Your task to perform on an android device: Go to CNN.com Image 0: 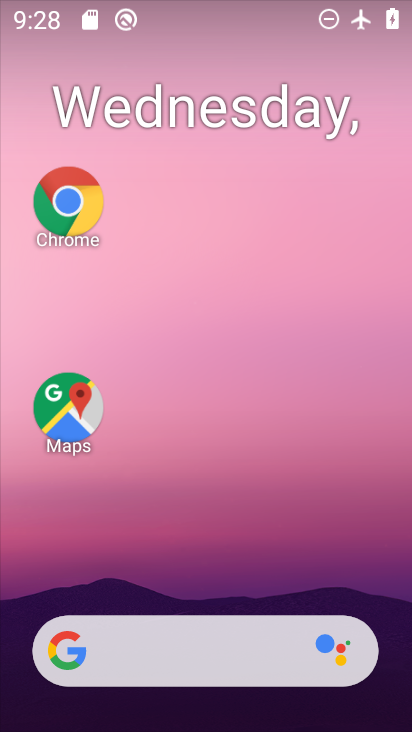
Step 0: click (68, 220)
Your task to perform on an android device: Go to CNN.com Image 1: 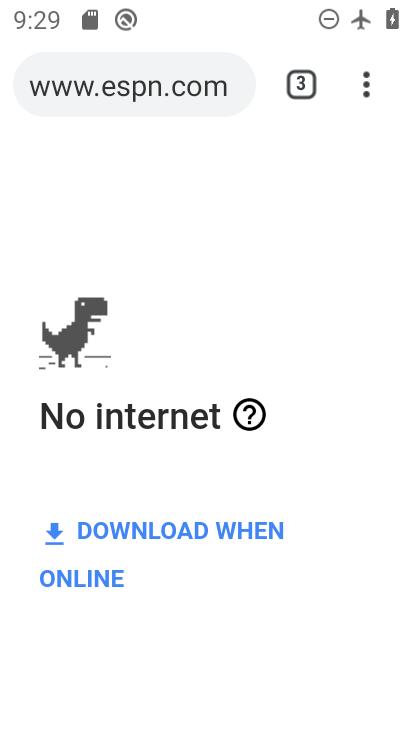
Step 1: click (308, 100)
Your task to perform on an android device: Go to CNN.com Image 2: 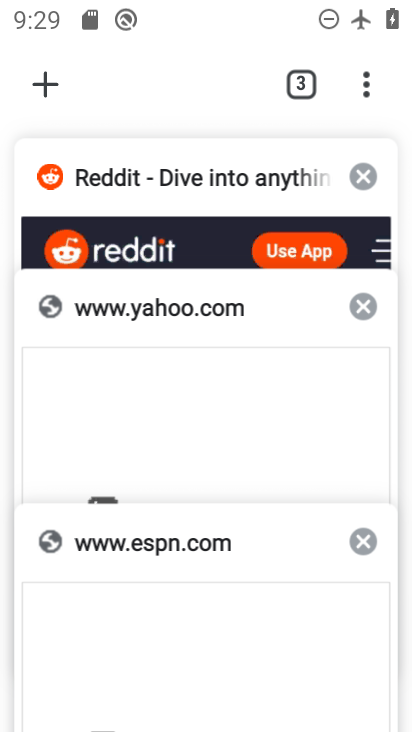
Step 2: click (48, 82)
Your task to perform on an android device: Go to CNN.com Image 3: 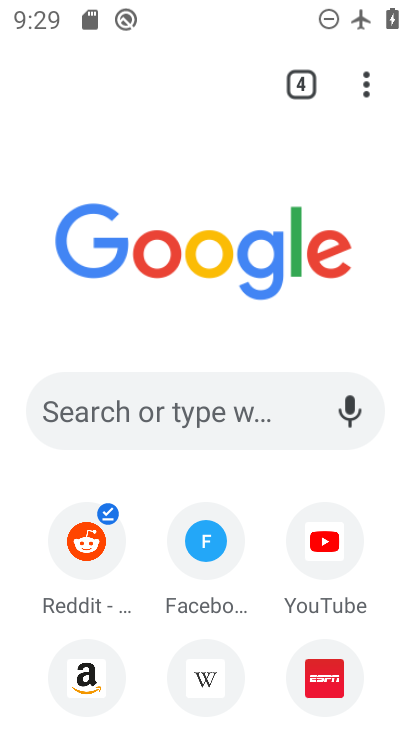
Step 3: click (169, 411)
Your task to perform on an android device: Go to CNN.com Image 4: 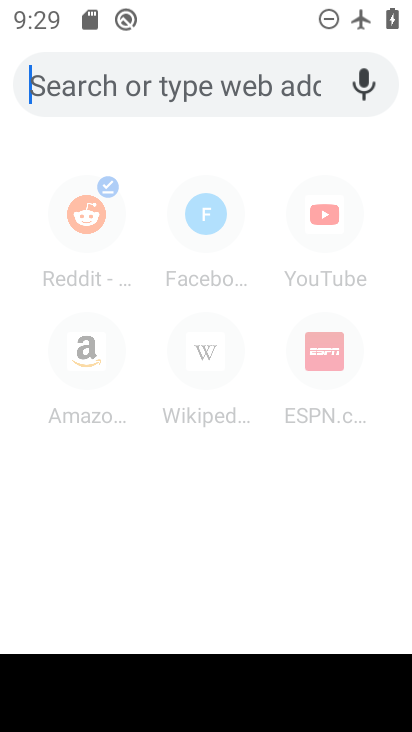
Step 4: type "cnn"
Your task to perform on an android device: Go to CNN.com Image 5: 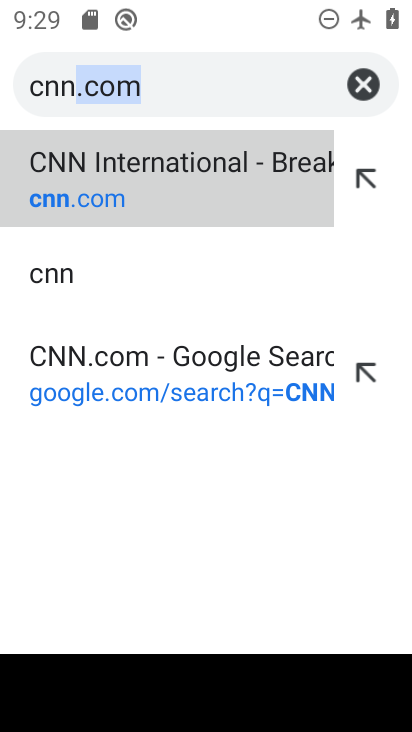
Step 5: click (171, 378)
Your task to perform on an android device: Go to CNN.com Image 6: 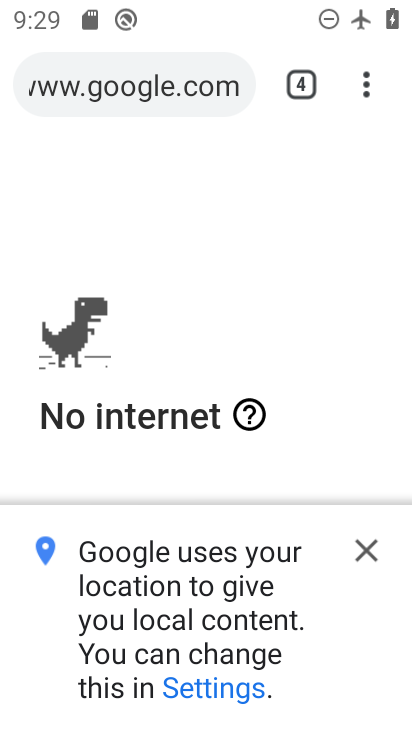
Step 6: task complete